Your task to perform on an android device: empty trash in google photos Image 0: 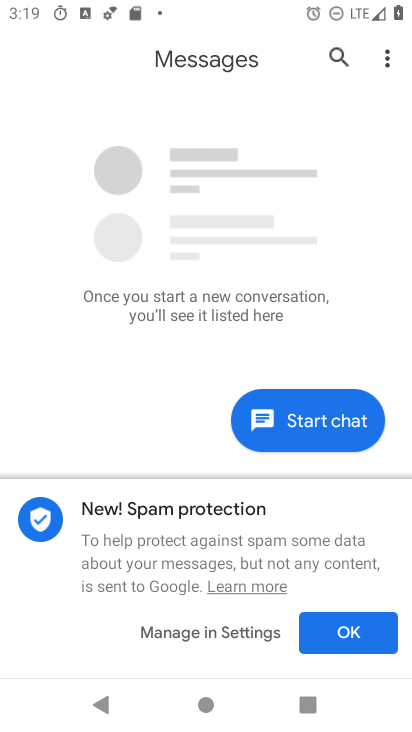
Step 0: press home button
Your task to perform on an android device: empty trash in google photos Image 1: 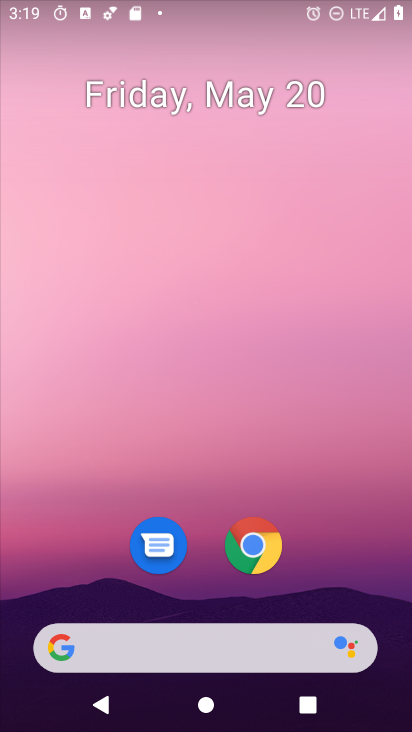
Step 1: drag from (263, 615) to (293, 18)
Your task to perform on an android device: empty trash in google photos Image 2: 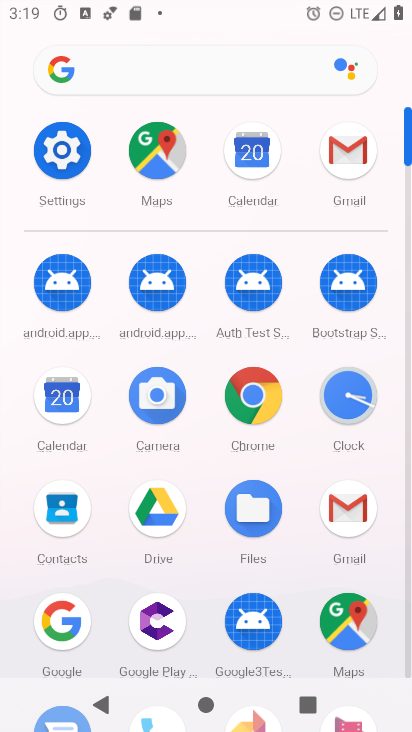
Step 2: drag from (227, 569) to (212, 220)
Your task to perform on an android device: empty trash in google photos Image 3: 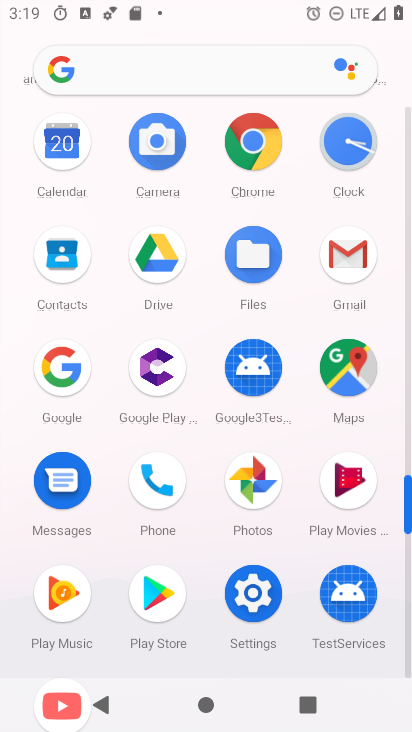
Step 3: click (268, 478)
Your task to perform on an android device: empty trash in google photos Image 4: 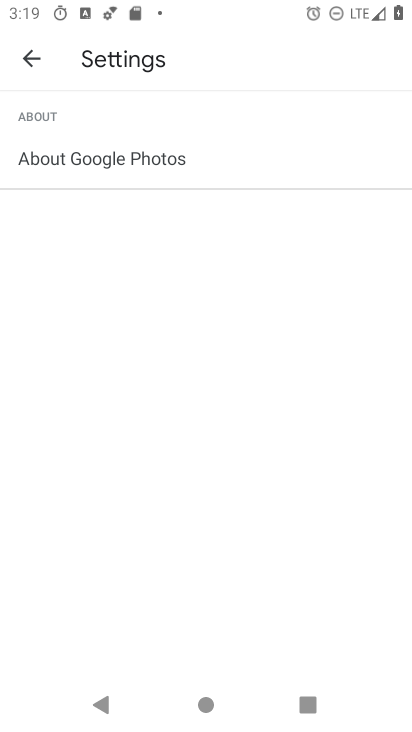
Step 4: press back button
Your task to perform on an android device: empty trash in google photos Image 5: 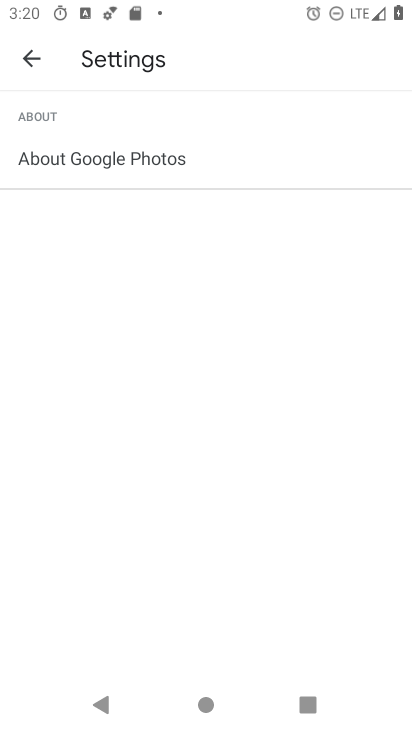
Step 5: press back button
Your task to perform on an android device: empty trash in google photos Image 6: 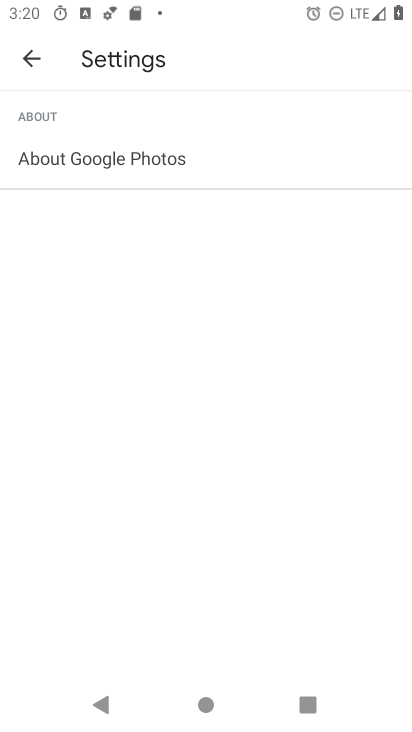
Step 6: press back button
Your task to perform on an android device: empty trash in google photos Image 7: 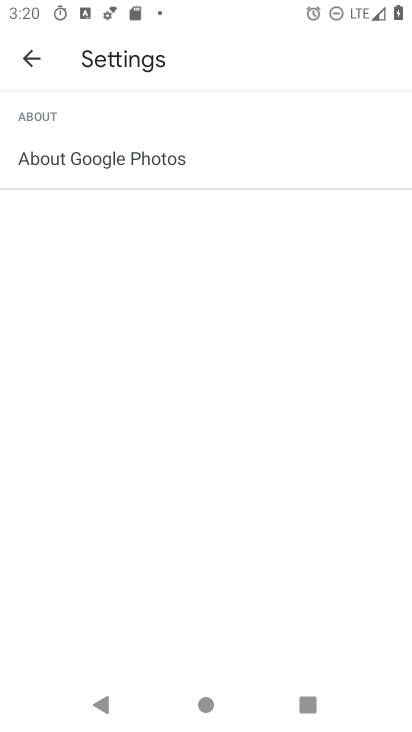
Step 7: press back button
Your task to perform on an android device: empty trash in google photos Image 8: 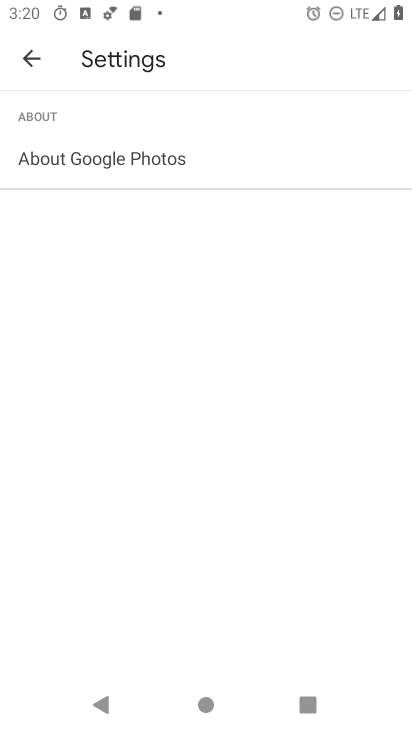
Step 8: press back button
Your task to perform on an android device: empty trash in google photos Image 9: 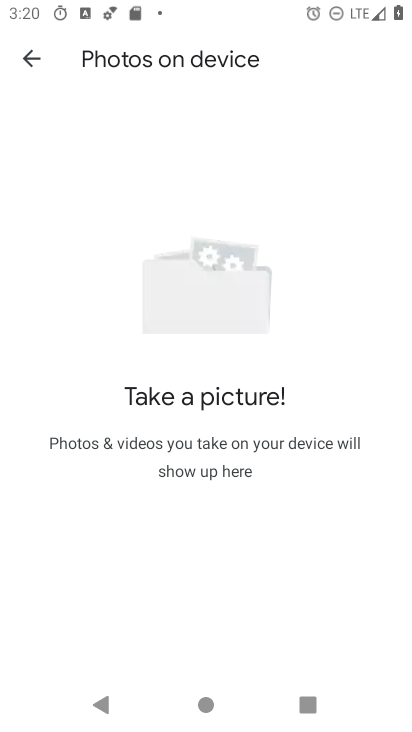
Step 9: press back button
Your task to perform on an android device: empty trash in google photos Image 10: 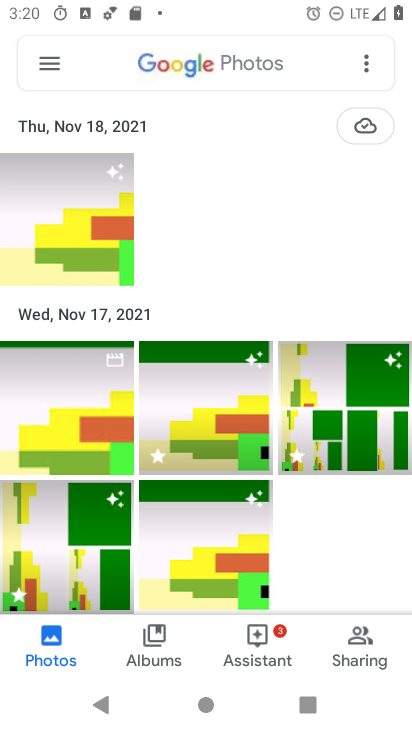
Step 10: click (50, 53)
Your task to perform on an android device: empty trash in google photos Image 11: 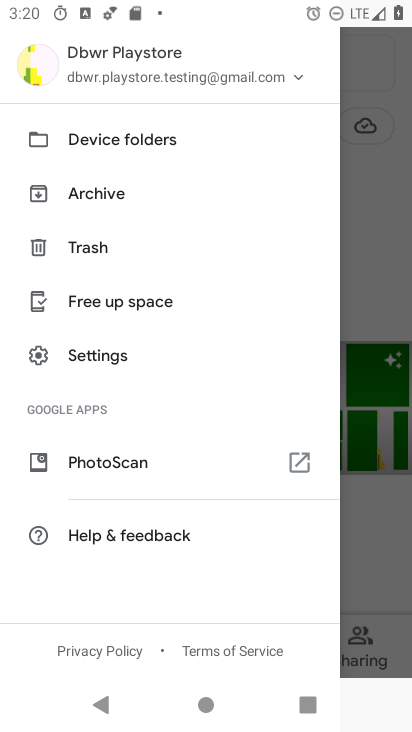
Step 11: click (114, 244)
Your task to perform on an android device: empty trash in google photos Image 12: 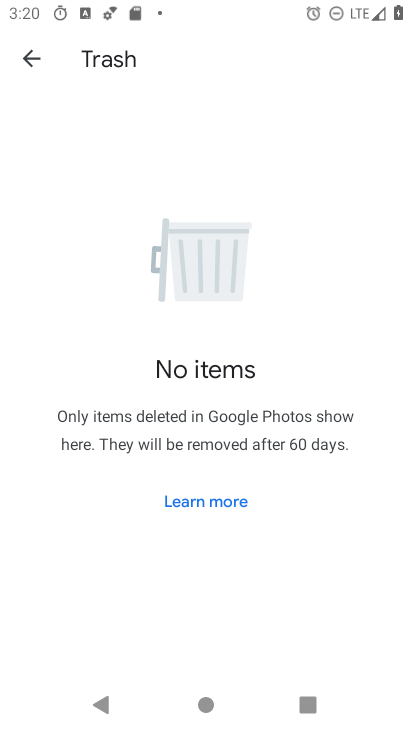
Step 12: task complete